Your task to perform on an android device: add a contact in the contacts app Image 0: 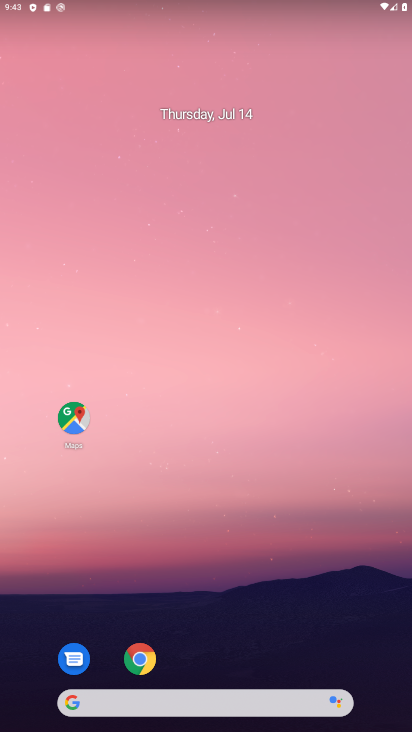
Step 0: drag from (167, 694) to (255, 105)
Your task to perform on an android device: add a contact in the contacts app Image 1: 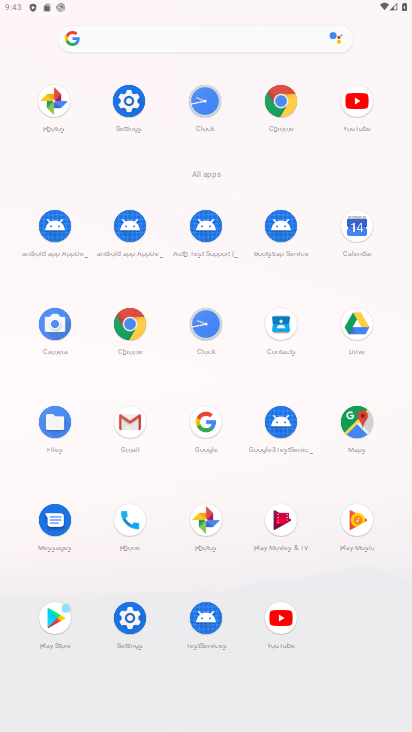
Step 1: click (278, 318)
Your task to perform on an android device: add a contact in the contacts app Image 2: 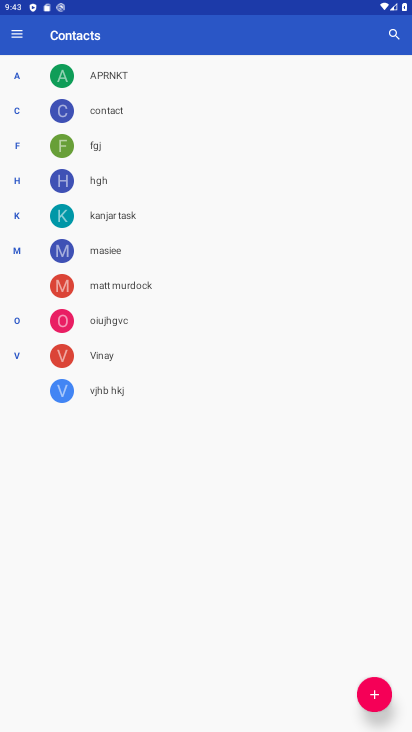
Step 2: click (378, 699)
Your task to perform on an android device: add a contact in the contacts app Image 3: 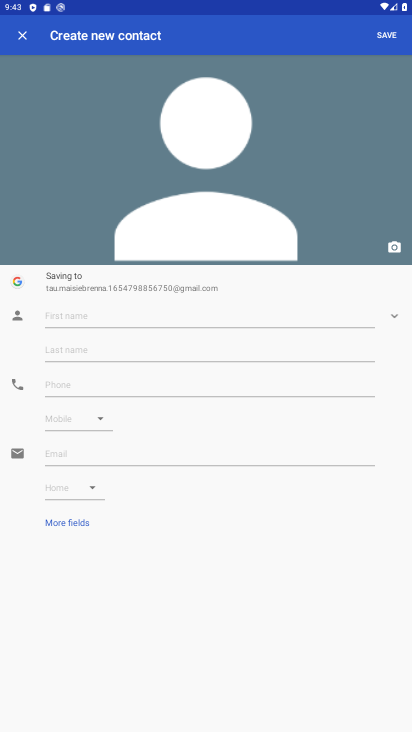
Step 3: click (51, 313)
Your task to perform on an android device: add a contact in the contacts app Image 4: 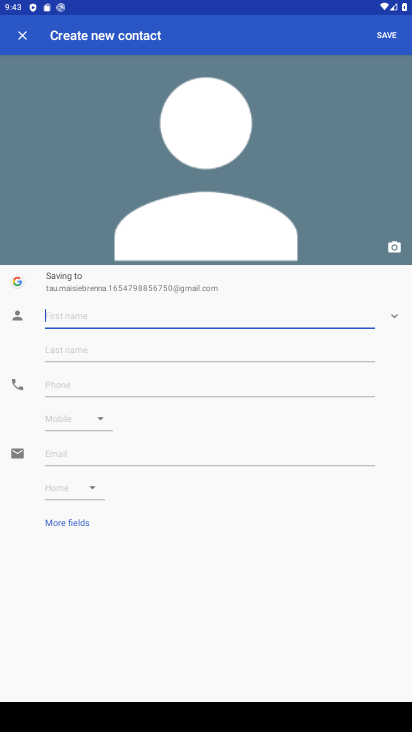
Step 4: type "pop"
Your task to perform on an android device: add a contact in the contacts app Image 5: 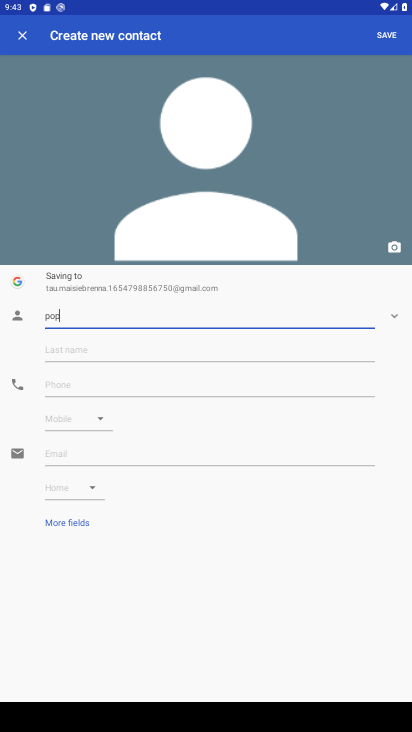
Step 5: click (95, 387)
Your task to perform on an android device: add a contact in the contacts app Image 6: 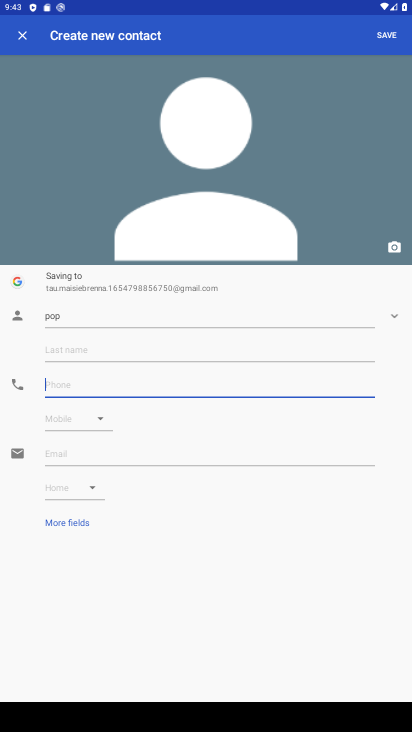
Step 6: type "85565688"
Your task to perform on an android device: add a contact in the contacts app Image 7: 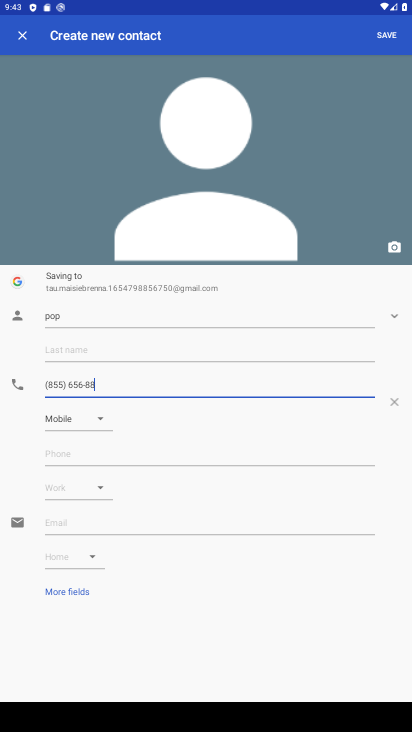
Step 7: click (391, 40)
Your task to perform on an android device: add a contact in the contacts app Image 8: 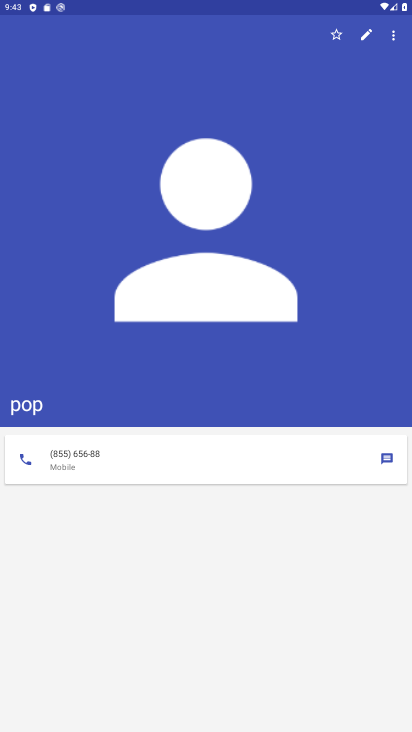
Step 8: task complete